Your task to perform on an android device: change keyboard looks Image 0: 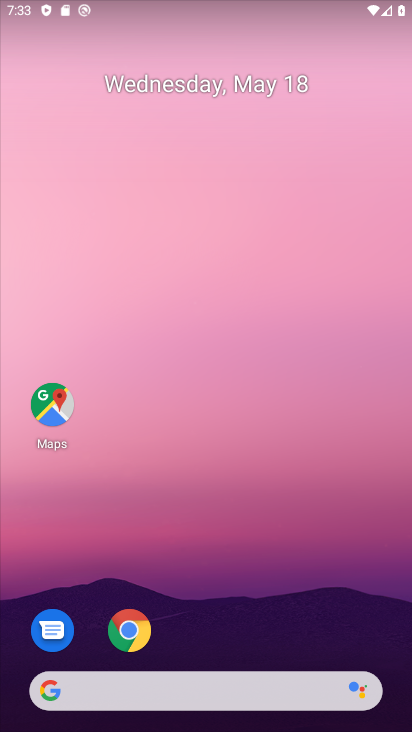
Step 0: drag from (269, 551) to (344, 11)
Your task to perform on an android device: change keyboard looks Image 1: 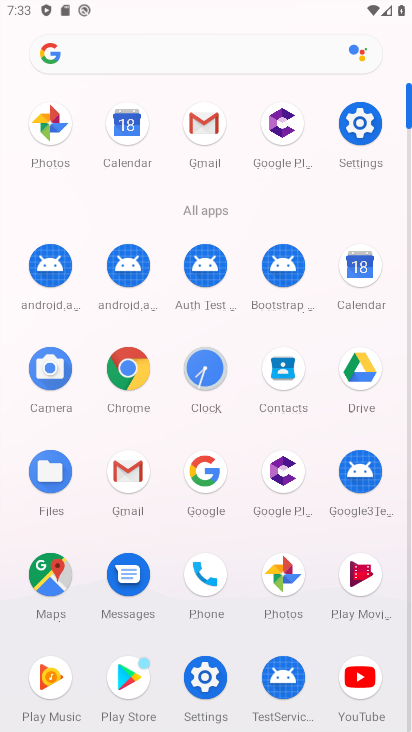
Step 1: click (352, 142)
Your task to perform on an android device: change keyboard looks Image 2: 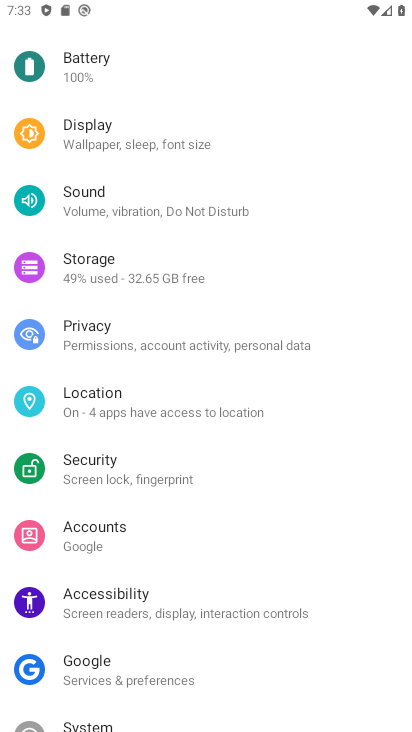
Step 2: drag from (124, 666) to (169, 258)
Your task to perform on an android device: change keyboard looks Image 3: 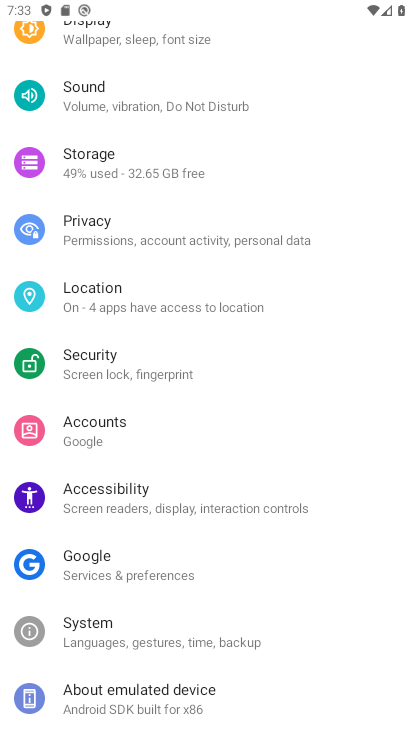
Step 3: drag from (159, 604) to (151, 519)
Your task to perform on an android device: change keyboard looks Image 4: 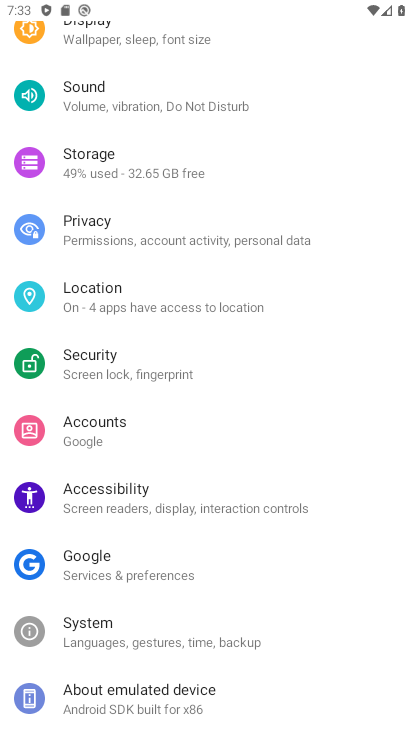
Step 4: click (118, 630)
Your task to perform on an android device: change keyboard looks Image 5: 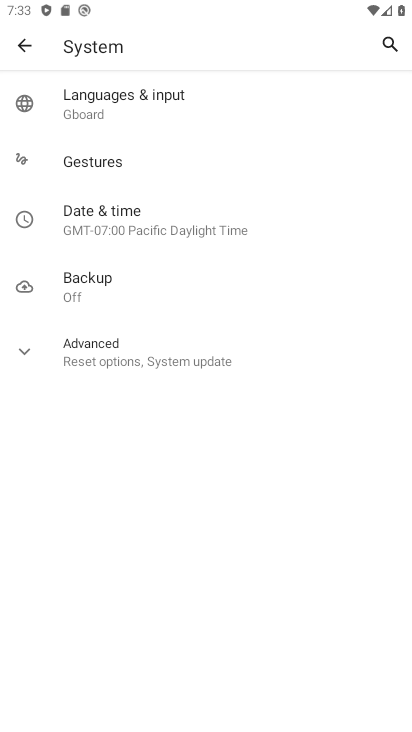
Step 5: click (107, 171)
Your task to perform on an android device: change keyboard looks Image 6: 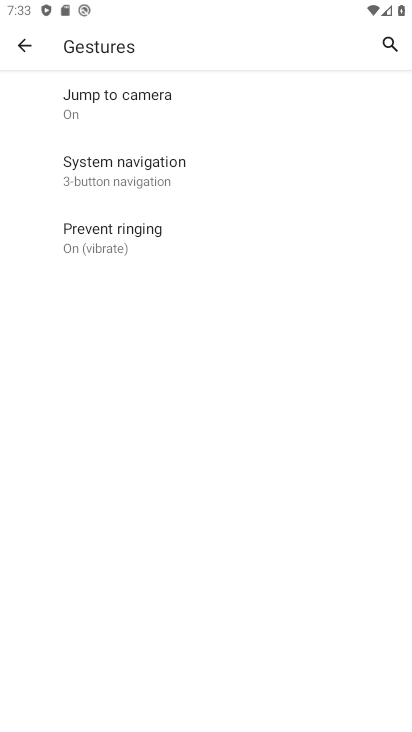
Step 6: click (20, 48)
Your task to perform on an android device: change keyboard looks Image 7: 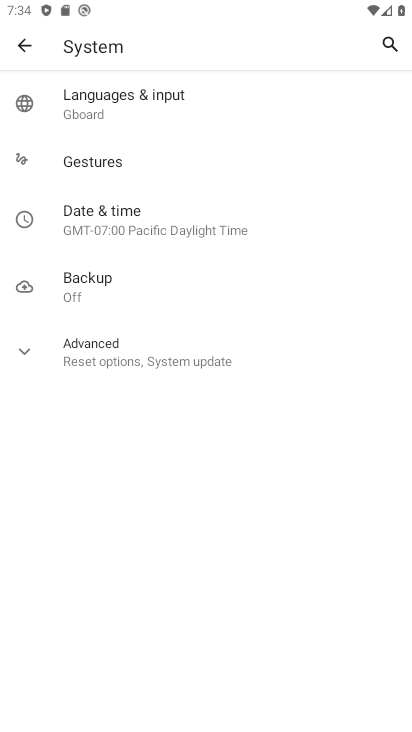
Step 7: click (79, 100)
Your task to perform on an android device: change keyboard looks Image 8: 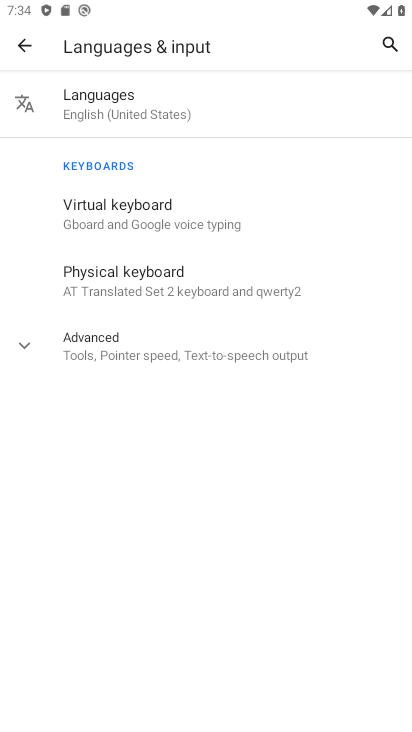
Step 8: click (105, 211)
Your task to perform on an android device: change keyboard looks Image 9: 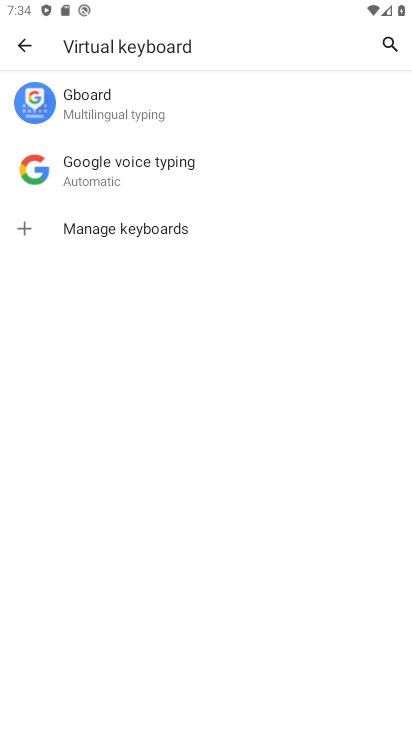
Step 9: click (89, 110)
Your task to perform on an android device: change keyboard looks Image 10: 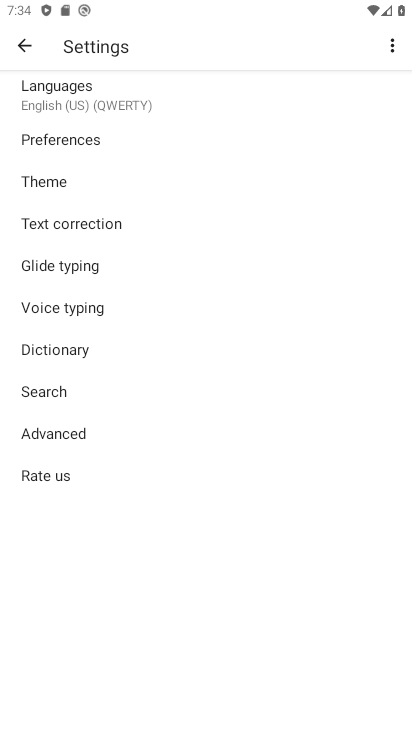
Step 10: click (60, 176)
Your task to perform on an android device: change keyboard looks Image 11: 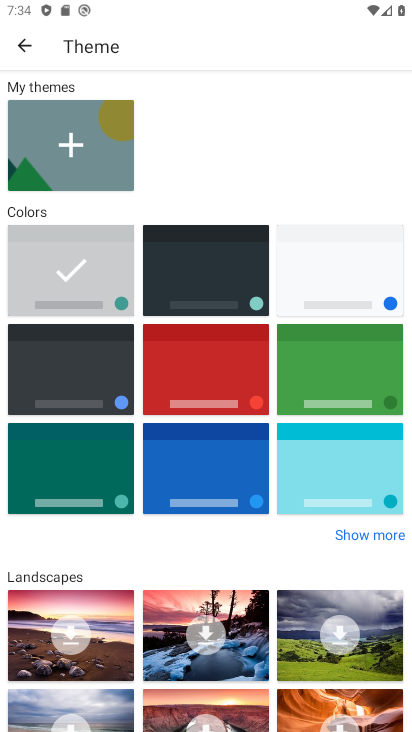
Step 11: click (240, 276)
Your task to perform on an android device: change keyboard looks Image 12: 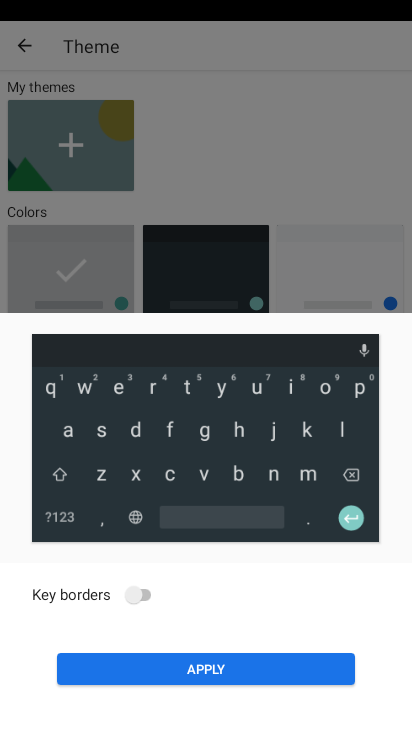
Step 12: click (183, 663)
Your task to perform on an android device: change keyboard looks Image 13: 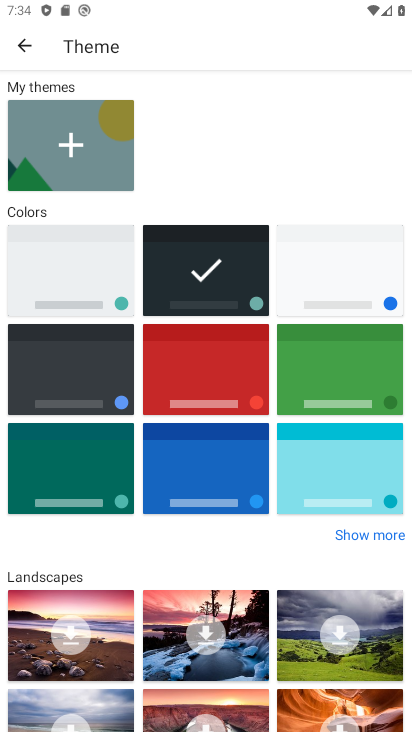
Step 13: task complete